Your task to perform on an android device: Open the phone app and click the voicemail tab. Image 0: 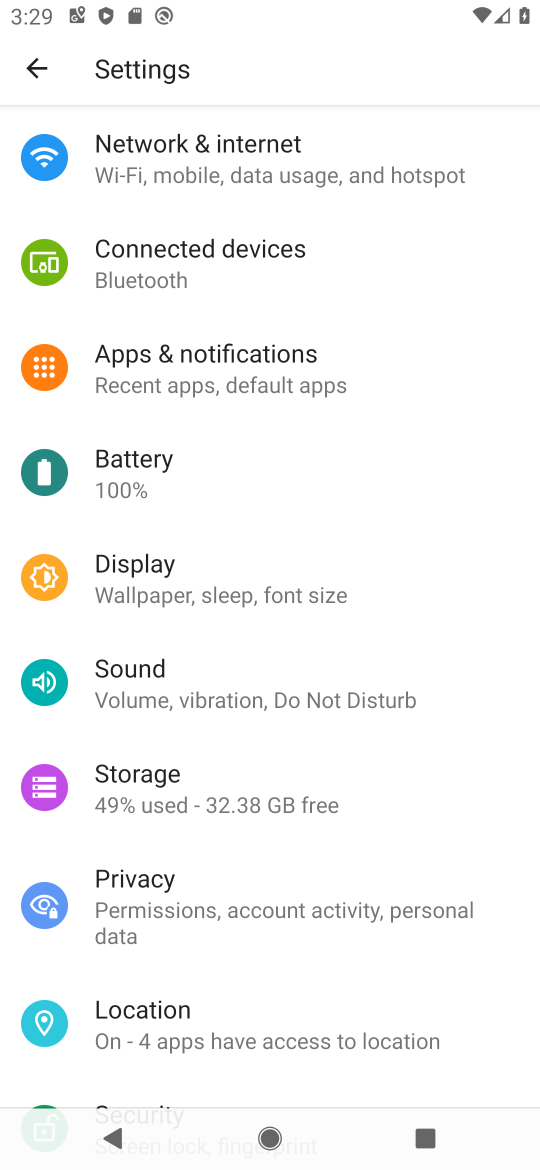
Step 0: press home button
Your task to perform on an android device: Open the phone app and click the voicemail tab. Image 1: 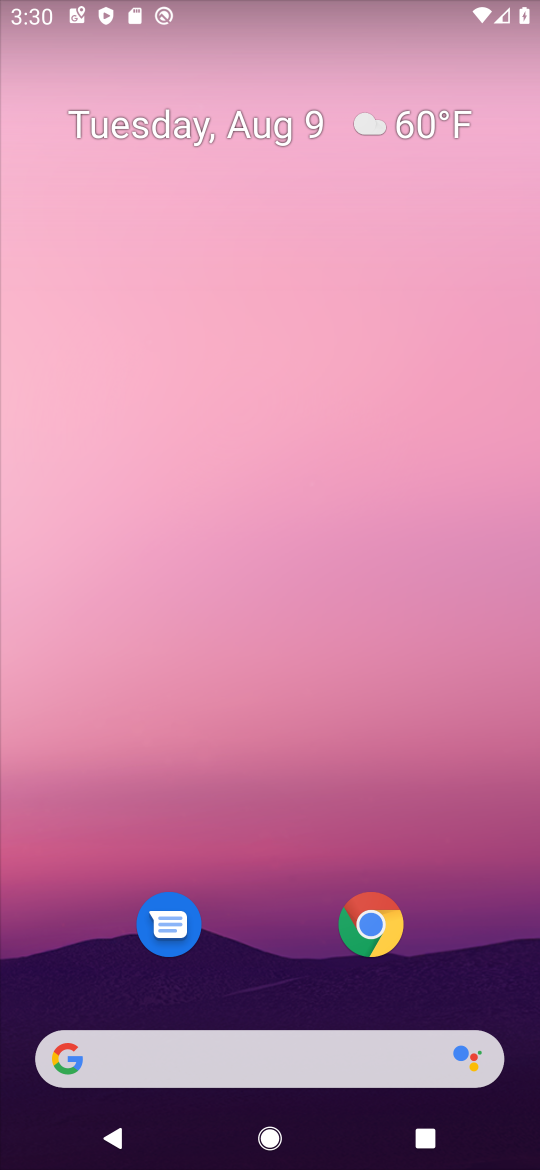
Step 1: drag from (266, 848) to (281, 2)
Your task to perform on an android device: Open the phone app and click the voicemail tab. Image 2: 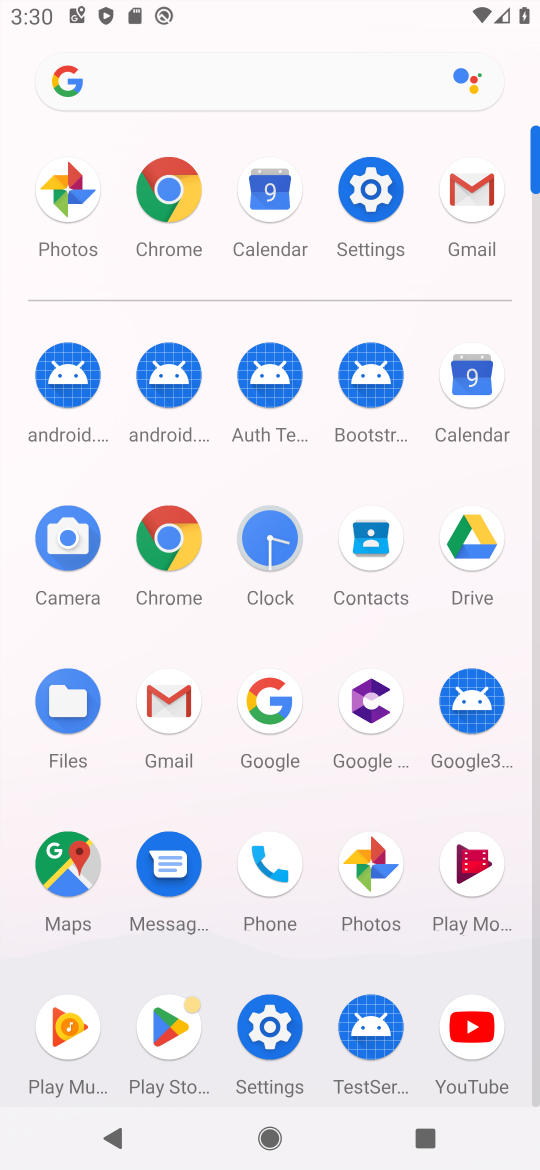
Step 2: click (263, 859)
Your task to perform on an android device: Open the phone app and click the voicemail tab. Image 3: 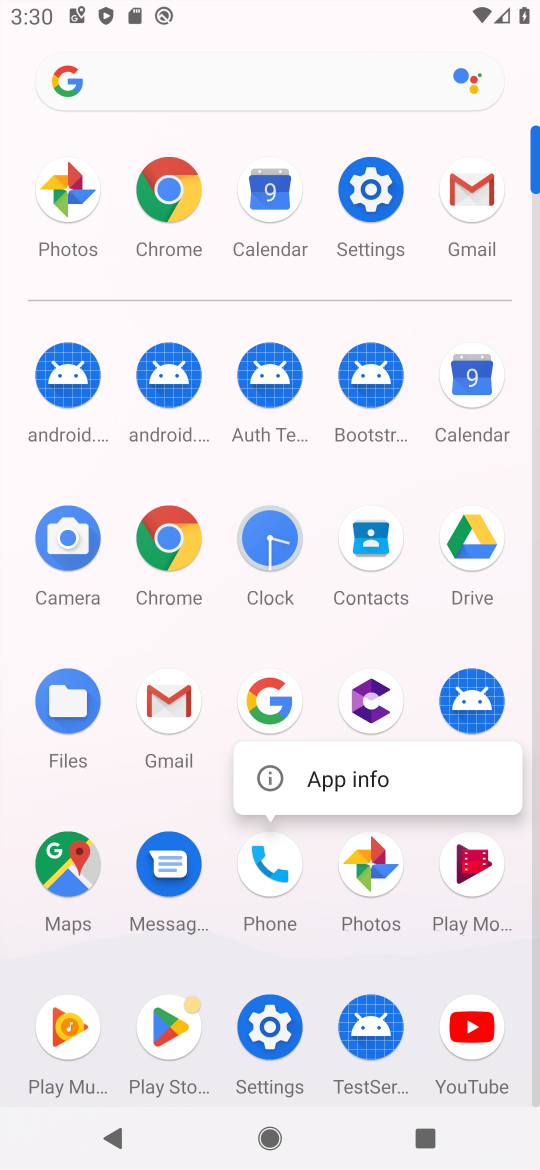
Step 3: click (263, 859)
Your task to perform on an android device: Open the phone app and click the voicemail tab. Image 4: 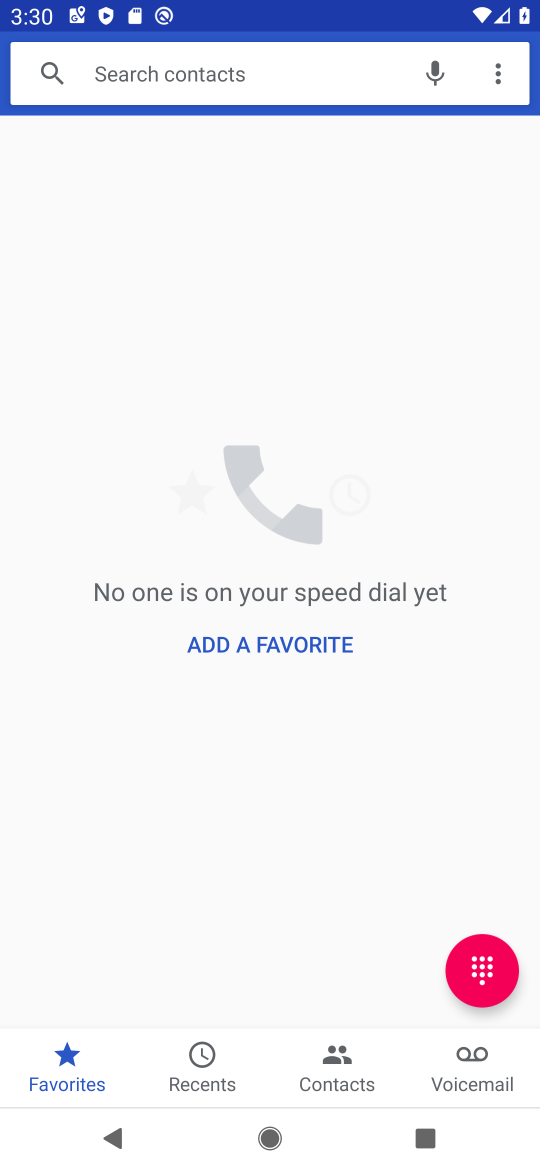
Step 4: click (466, 1067)
Your task to perform on an android device: Open the phone app and click the voicemail tab. Image 5: 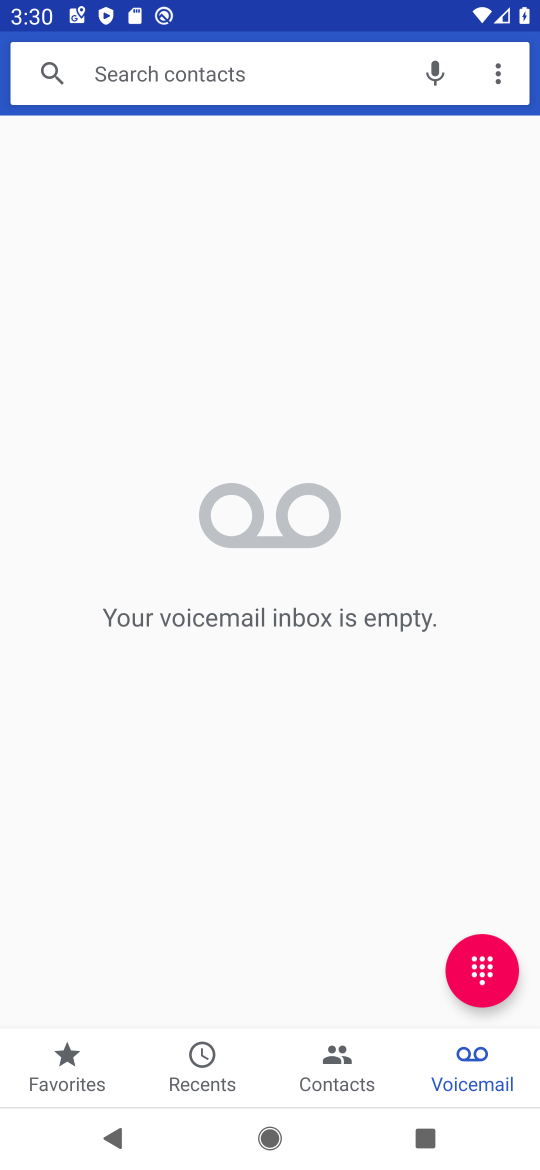
Step 5: task complete